Your task to perform on an android device: What's on my calendar tomorrow? Image 0: 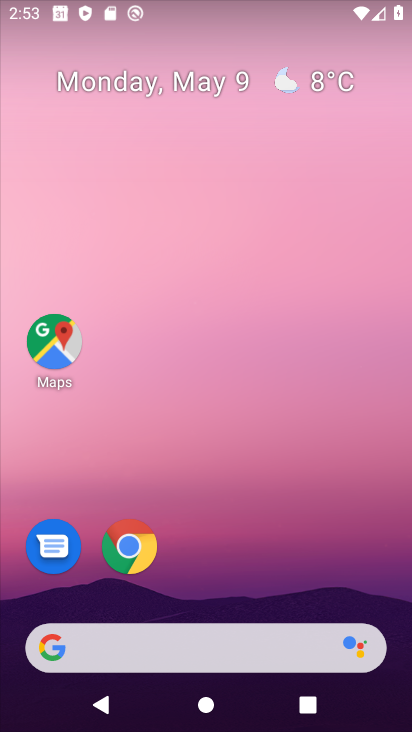
Step 0: drag from (242, 526) to (188, 74)
Your task to perform on an android device: What's on my calendar tomorrow? Image 1: 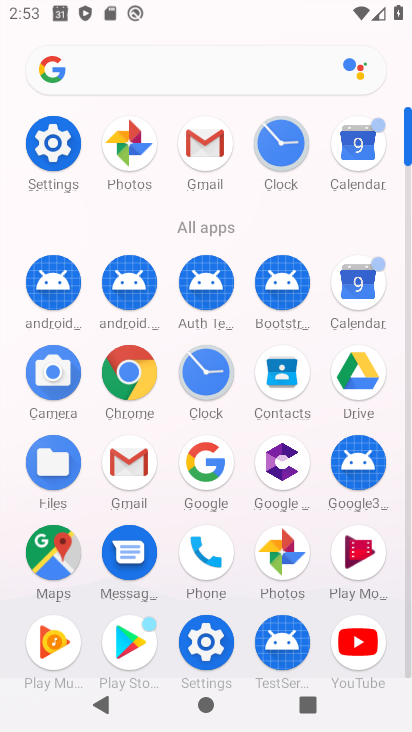
Step 1: click (356, 146)
Your task to perform on an android device: What's on my calendar tomorrow? Image 2: 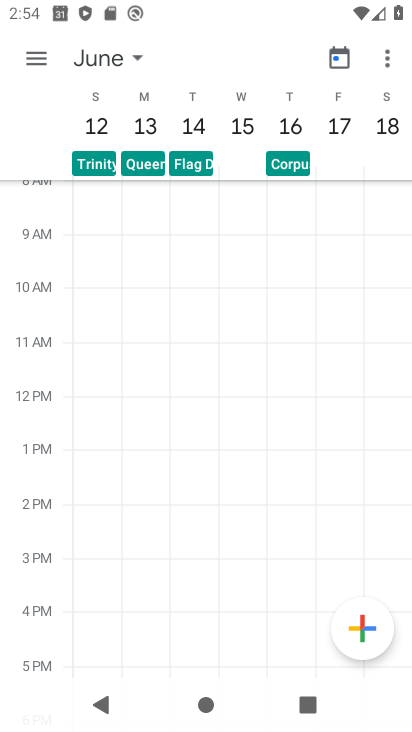
Step 2: drag from (99, 314) to (403, 356)
Your task to perform on an android device: What's on my calendar tomorrow? Image 3: 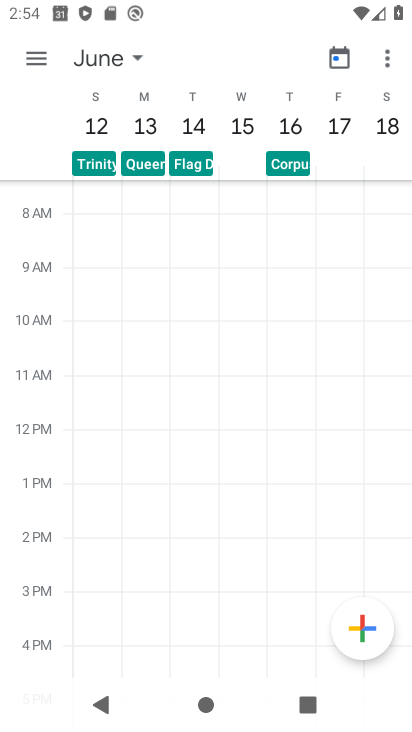
Step 3: drag from (83, 408) to (400, 376)
Your task to perform on an android device: What's on my calendar tomorrow? Image 4: 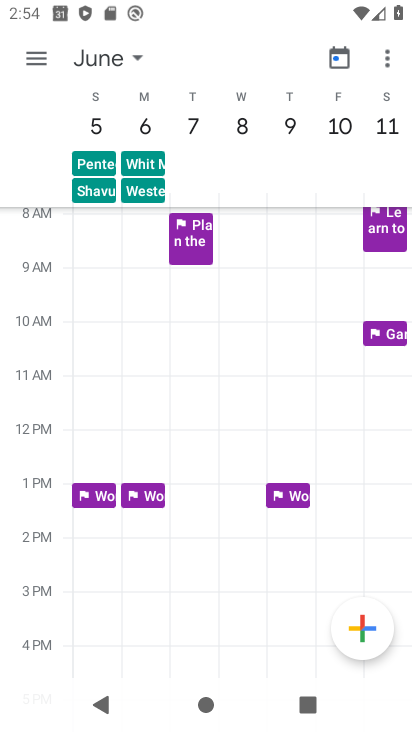
Step 4: drag from (68, 377) to (399, 408)
Your task to perform on an android device: What's on my calendar tomorrow? Image 5: 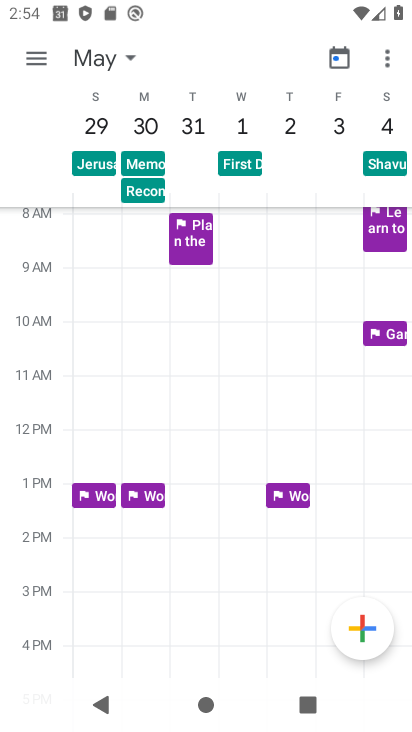
Step 5: drag from (104, 397) to (398, 422)
Your task to perform on an android device: What's on my calendar tomorrow? Image 6: 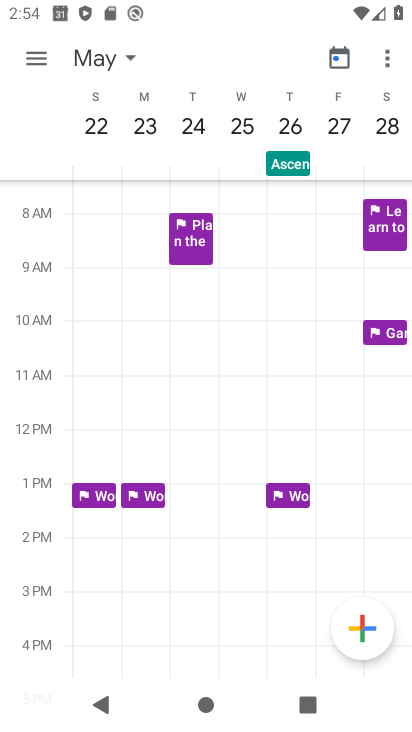
Step 6: drag from (89, 409) to (407, 411)
Your task to perform on an android device: What's on my calendar tomorrow? Image 7: 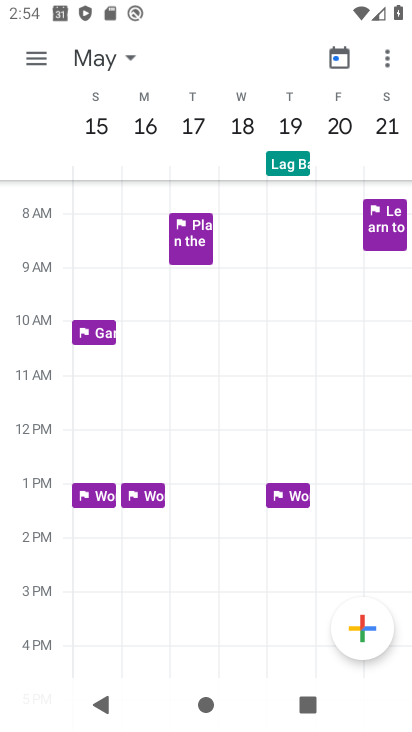
Step 7: drag from (99, 400) to (395, 377)
Your task to perform on an android device: What's on my calendar tomorrow? Image 8: 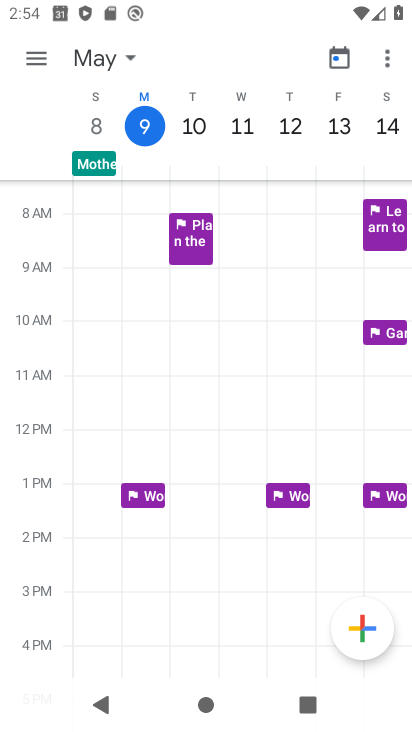
Step 8: click (199, 120)
Your task to perform on an android device: What's on my calendar tomorrow? Image 9: 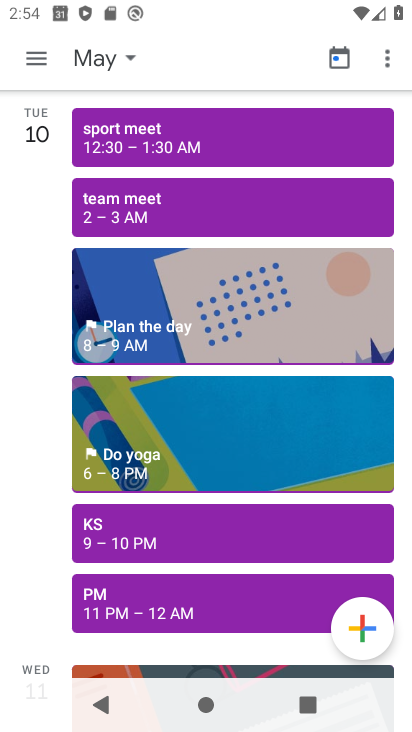
Step 9: task complete